Your task to perform on an android device: Do I have any events tomorrow? Image 0: 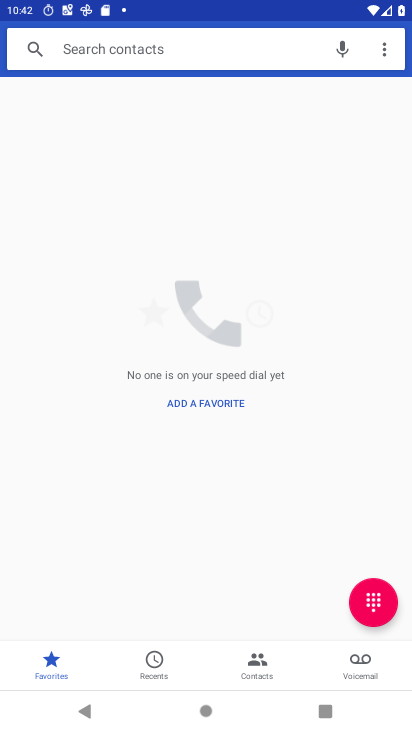
Step 0: press back button
Your task to perform on an android device: Do I have any events tomorrow? Image 1: 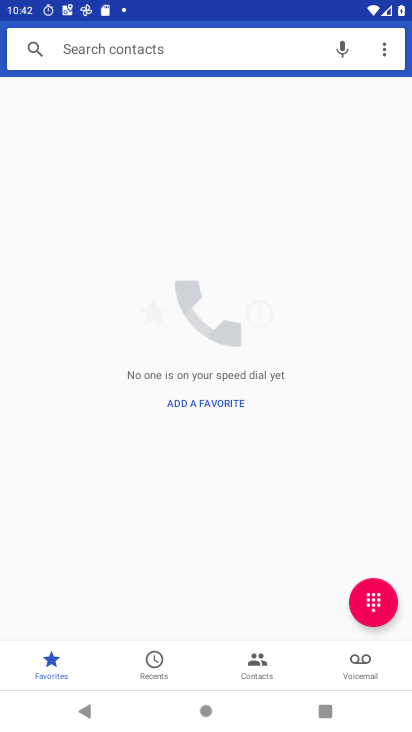
Step 1: press back button
Your task to perform on an android device: Do I have any events tomorrow? Image 2: 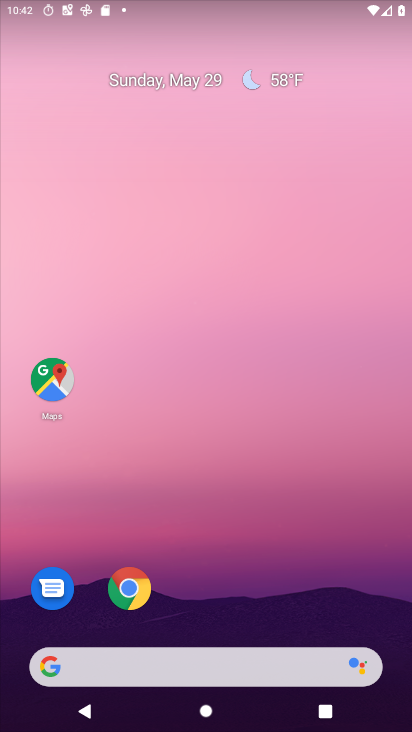
Step 2: drag from (240, 387) to (217, 132)
Your task to perform on an android device: Do I have any events tomorrow? Image 3: 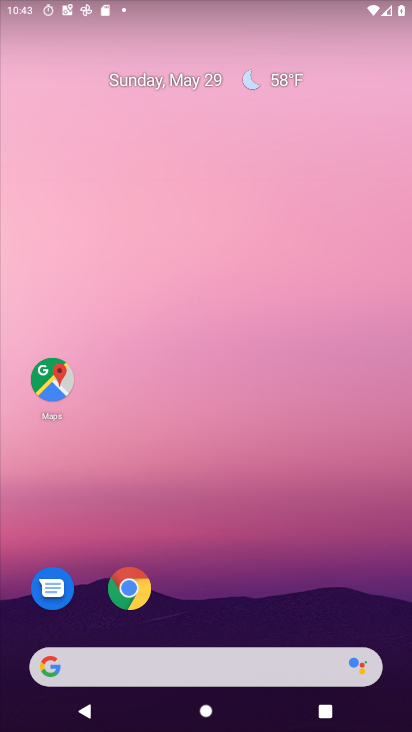
Step 3: drag from (238, 706) to (169, 10)
Your task to perform on an android device: Do I have any events tomorrow? Image 4: 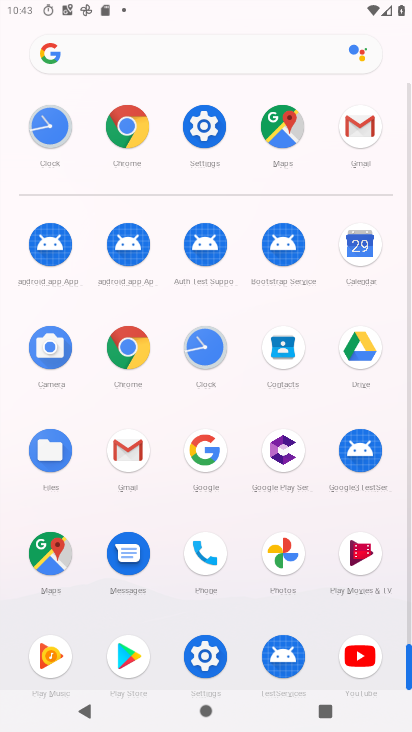
Step 4: click (350, 253)
Your task to perform on an android device: Do I have any events tomorrow? Image 5: 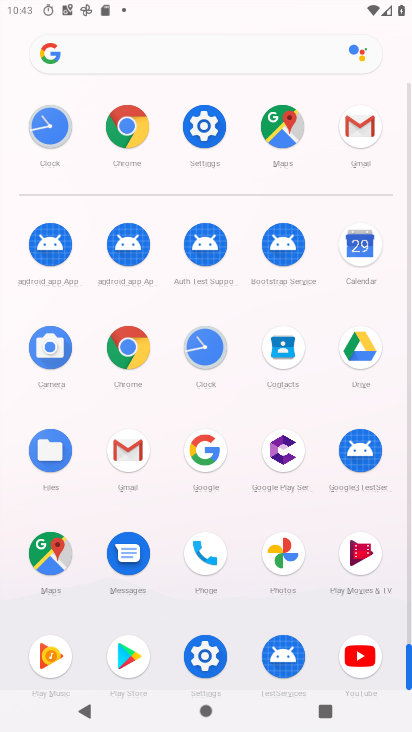
Step 5: click (350, 253)
Your task to perform on an android device: Do I have any events tomorrow? Image 6: 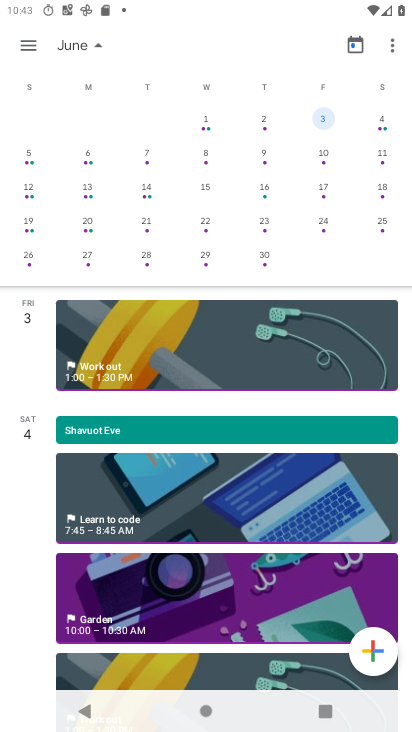
Step 6: drag from (25, 204) to (385, 220)
Your task to perform on an android device: Do I have any events tomorrow? Image 7: 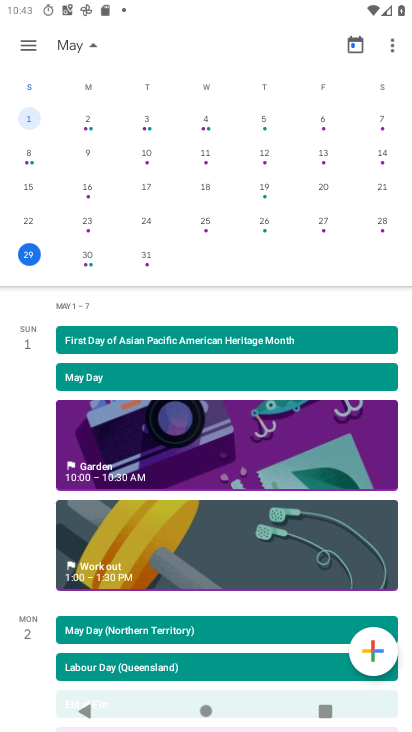
Step 7: click (143, 251)
Your task to perform on an android device: Do I have any events tomorrow? Image 8: 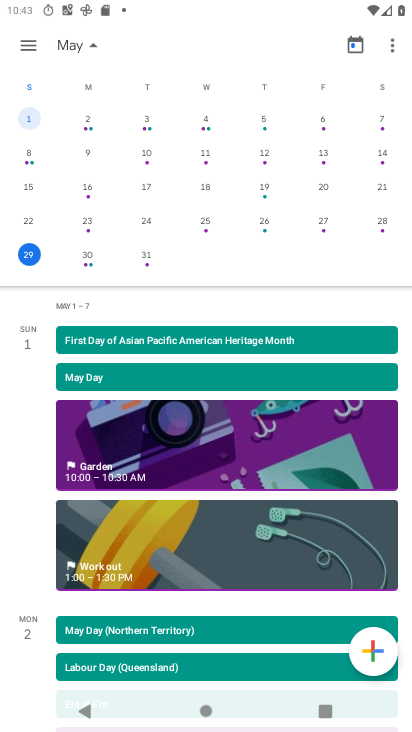
Step 8: click (143, 251)
Your task to perform on an android device: Do I have any events tomorrow? Image 9: 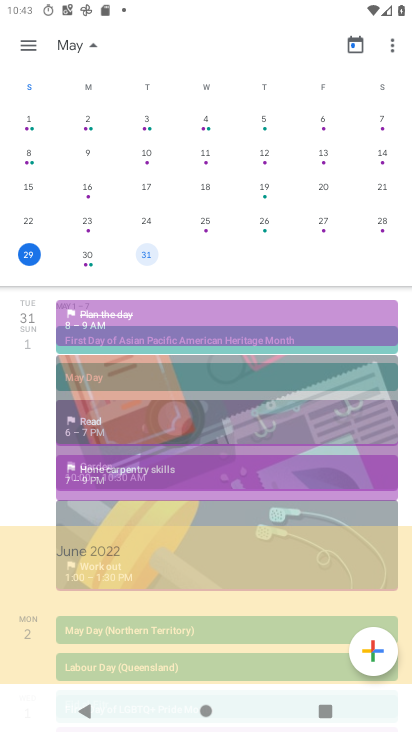
Step 9: click (143, 251)
Your task to perform on an android device: Do I have any events tomorrow? Image 10: 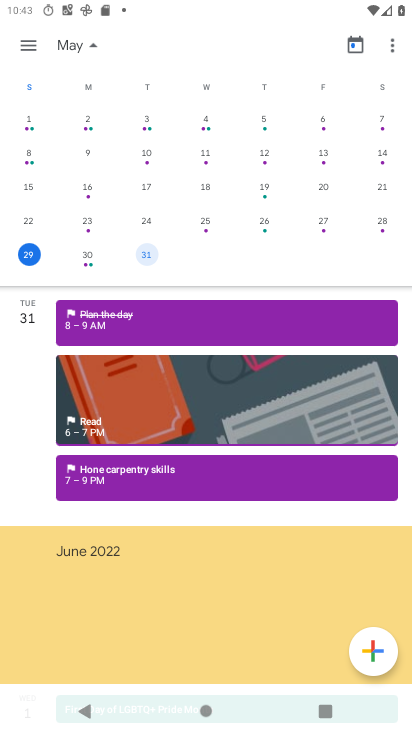
Step 10: click (144, 375)
Your task to perform on an android device: Do I have any events tomorrow? Image 11: 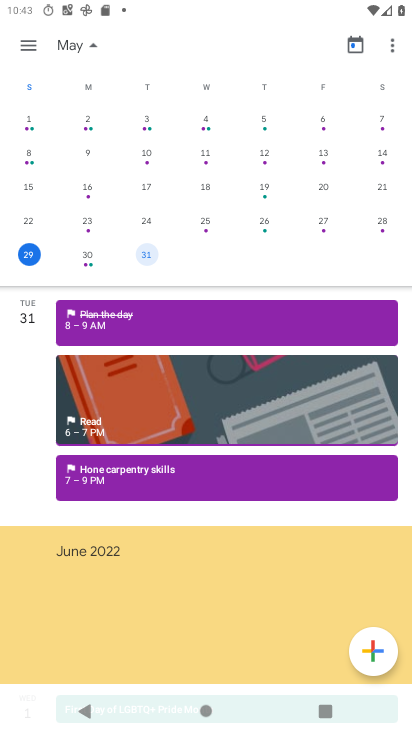
Step 11: click (247, 398)
Your task to perform on an android device: Do I have any events tomorrow? Image 12: 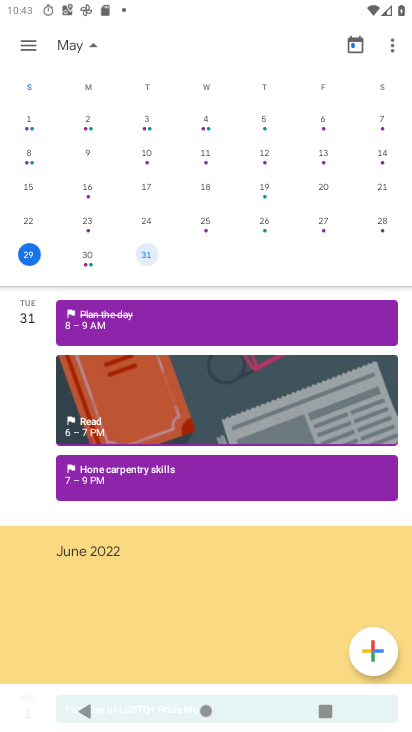
Step 12: click (245, 398)
Your task to perform on an android device: Do I have any events tomorrow? Image 13: 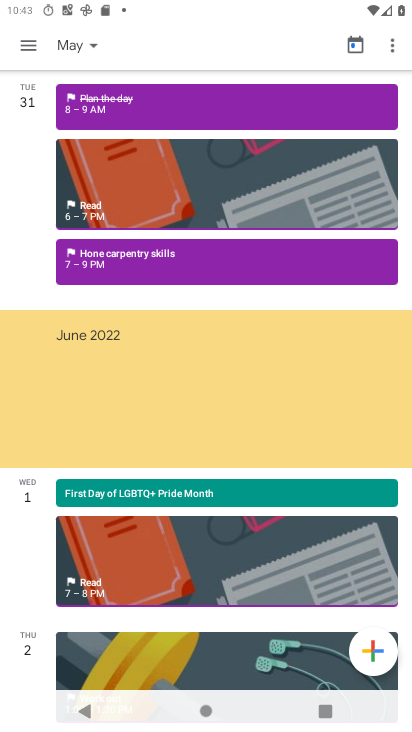
Step 13: click (244, 398)
Your task to perform on an android device: Do I have any events tomorrow? Image 14: 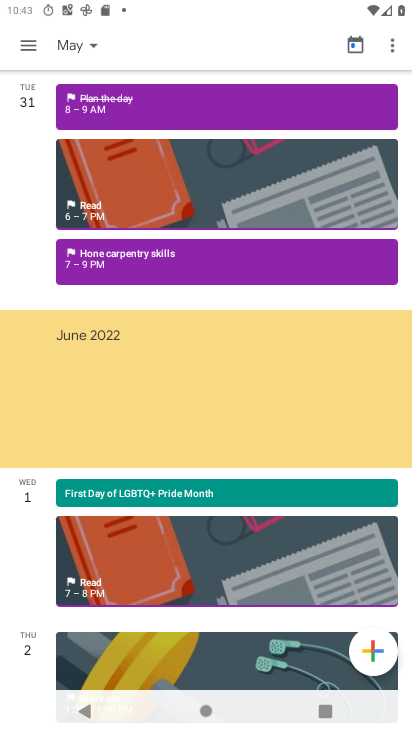
Step 14: task complete